Your task to perform on an android device: Open calendar and show me the fourth week of next month Image 0: 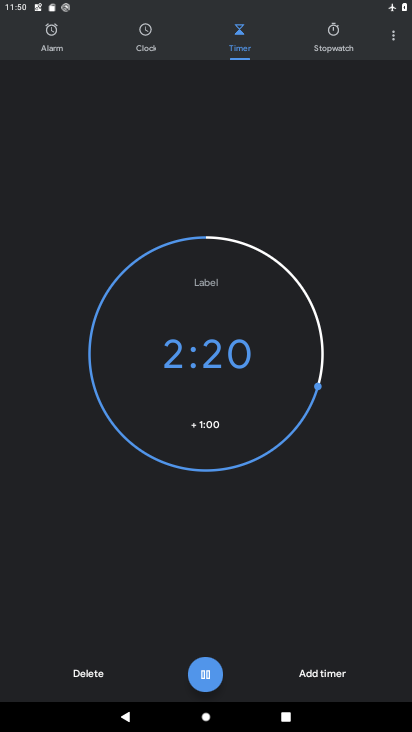
Step 0: press home button
Your task to perform on an android device: Open calendar and show me the fourth week of next month Image 1: 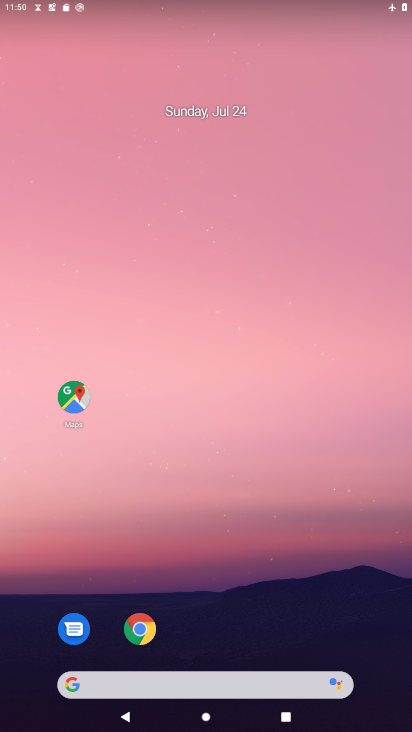
Step 1: drag from (197, 527) to (151, 122)
Your task to perform on an android device: Open calendar and show me the fourth week of next month Image 2: 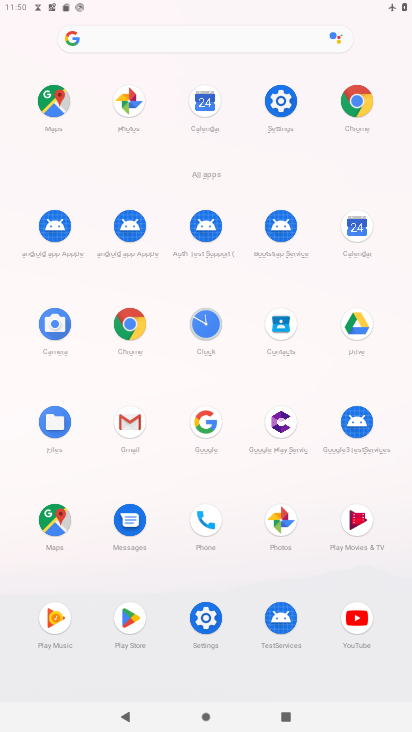
Step 2: click (358, 234)
Your task to perform on an android device: Open calendar and show me the fourth week of next month Image 3: 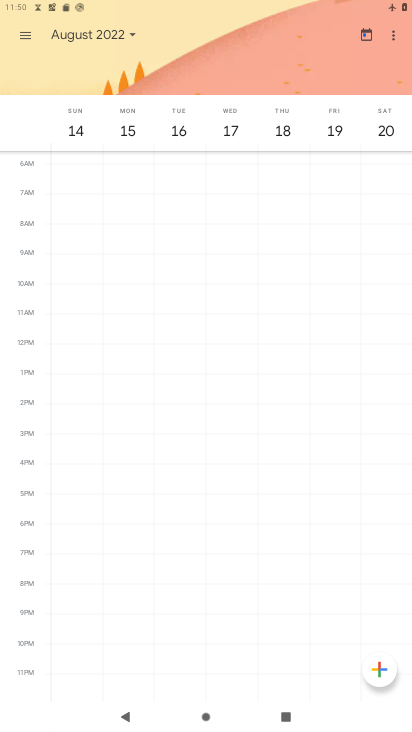
Step 3: task complete